Your task to perform on an android device: uninstall "Move to iOS" Image 0: 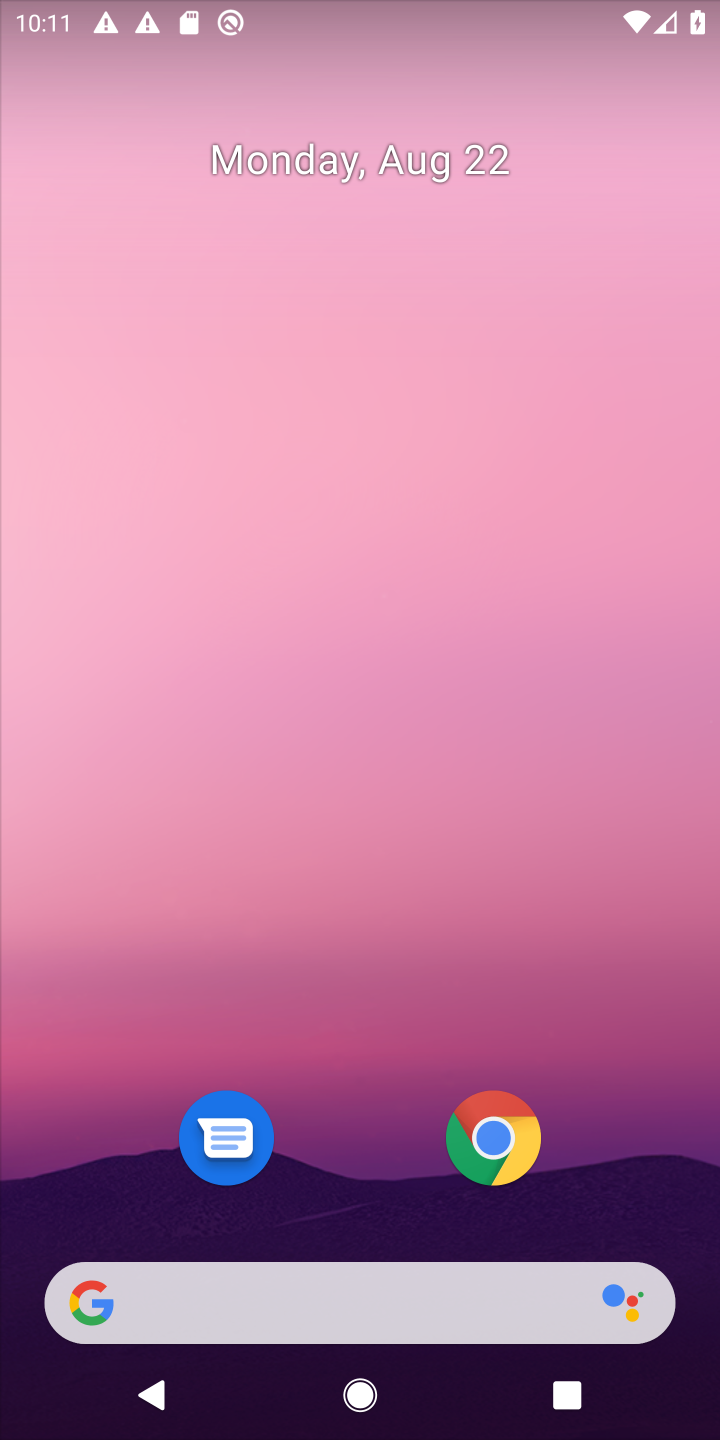
Step 0: drag from (635, 1028) to (651, 94)
Your task to perform on an android device: uninstall "Move to iOS" Image 1: 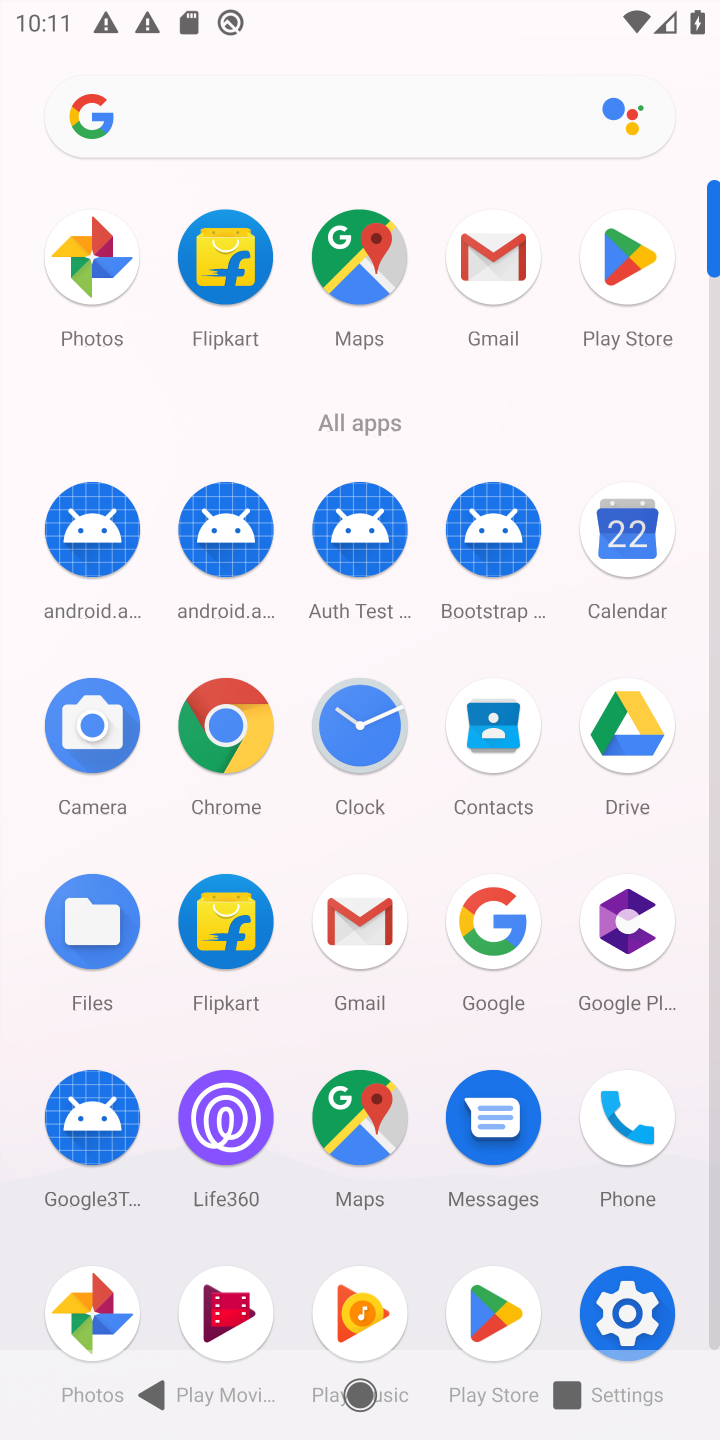
Step 1: click (627, 262)
Your task to perform on an android device: uninstall "Move to iOS" Image 2: 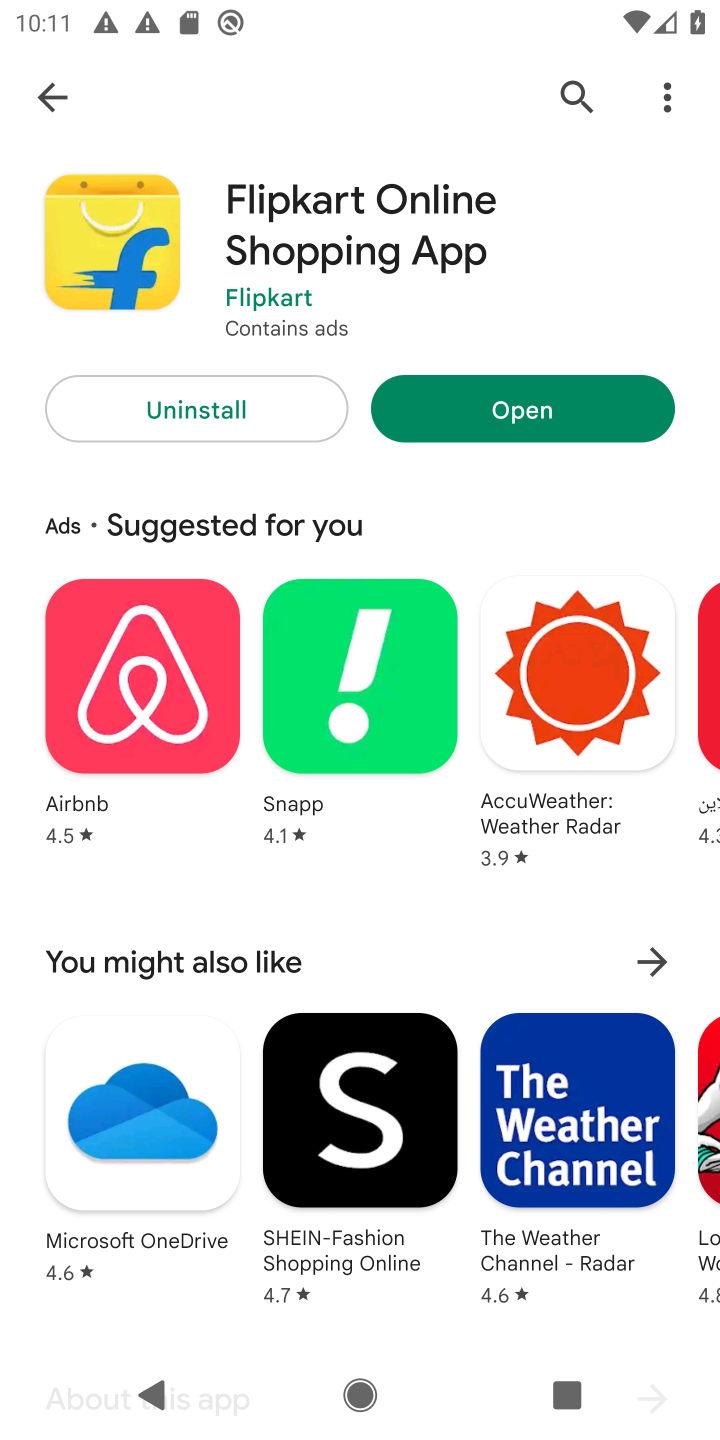
Step 2: press back button
Your task to perform on an android device: uninstall "Move to iOS" Image 3: 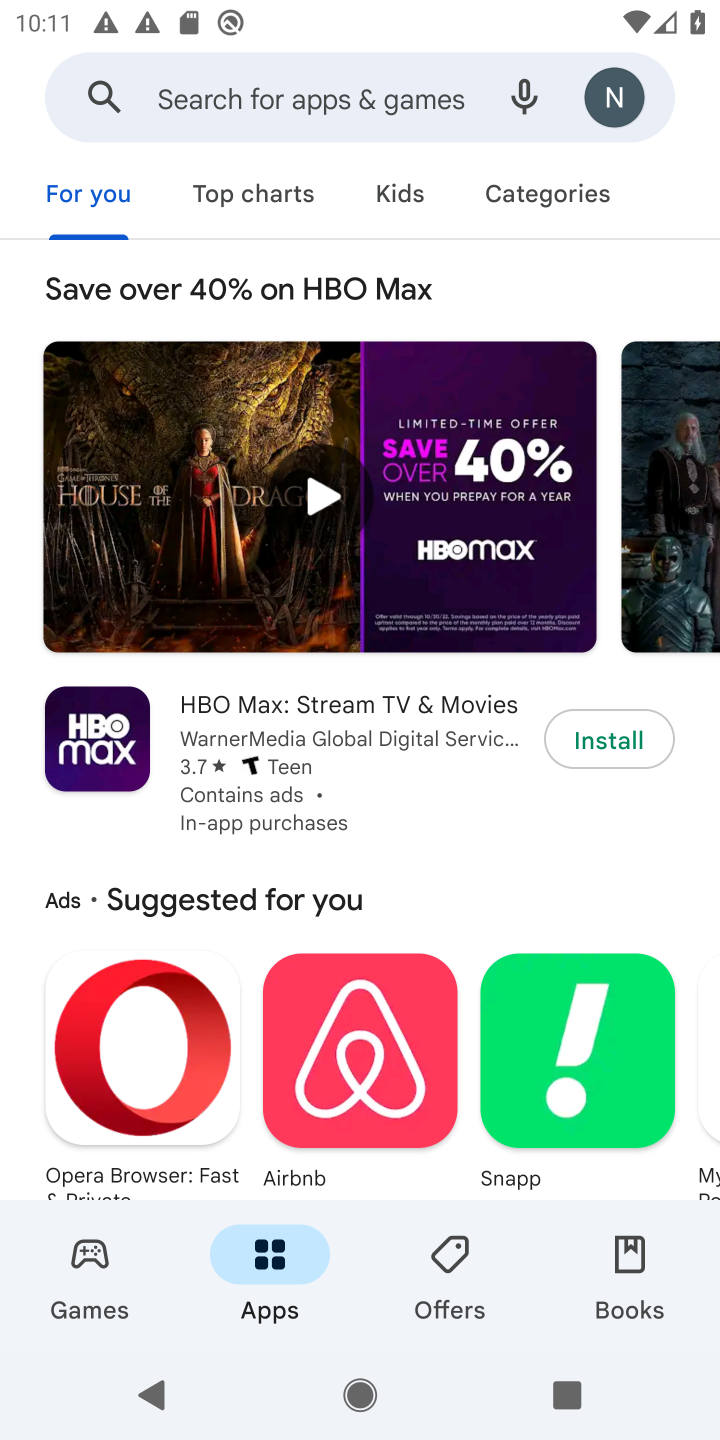
Step 3: click (354, 106)
Your task to perform on an android device: uninstall "Move to iOS" Image 4: 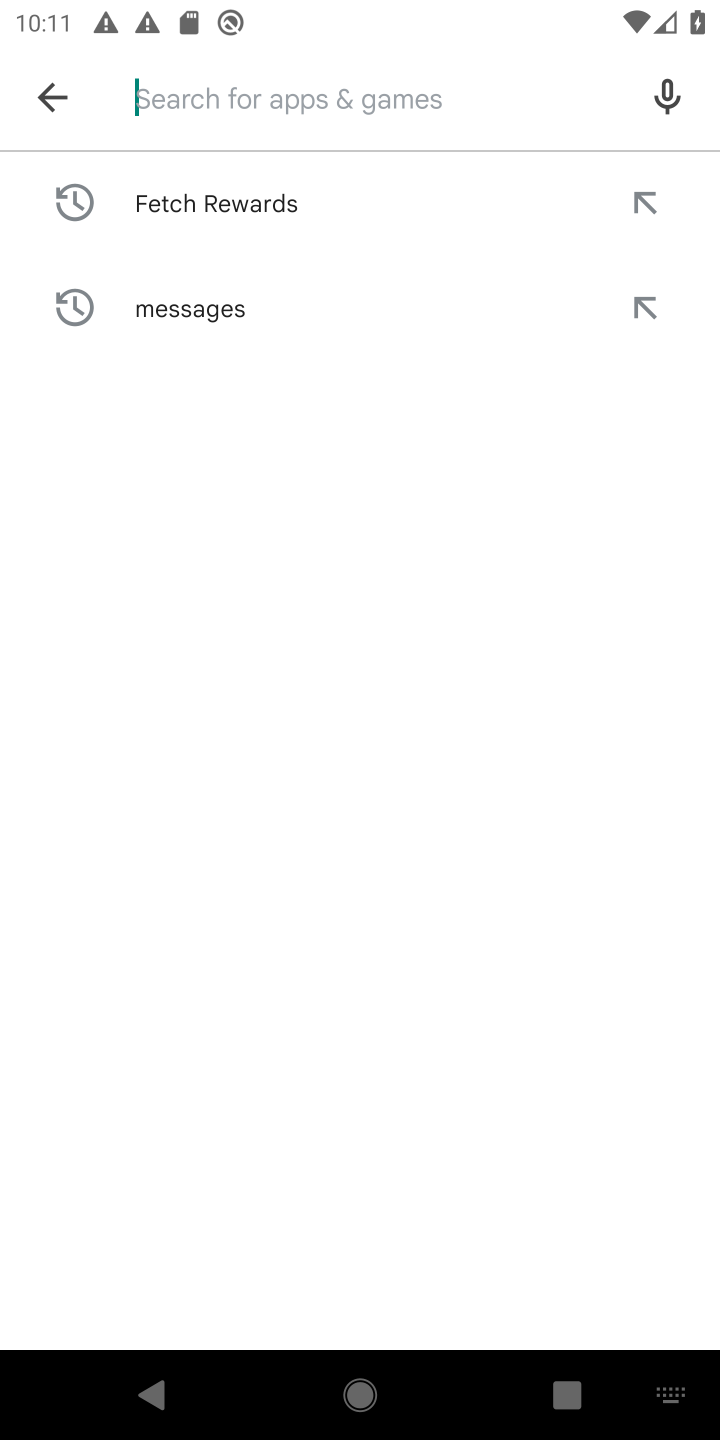
Step 4: type "move to ios"
Your task to perform on an android device: uninstall "Move to iOS" Image 5: 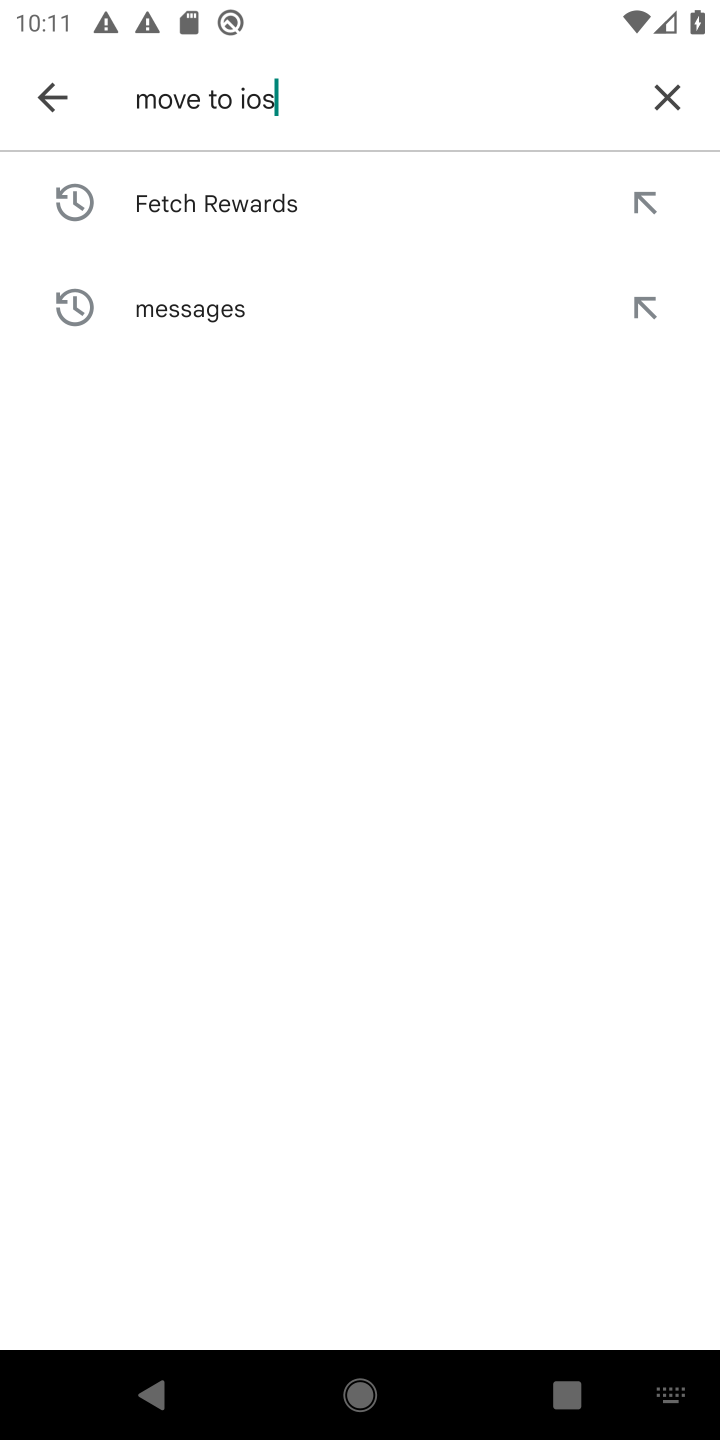
Step 5: press enter
Your task to perform on an android device: uninstall "Move to iOS" Image 6: 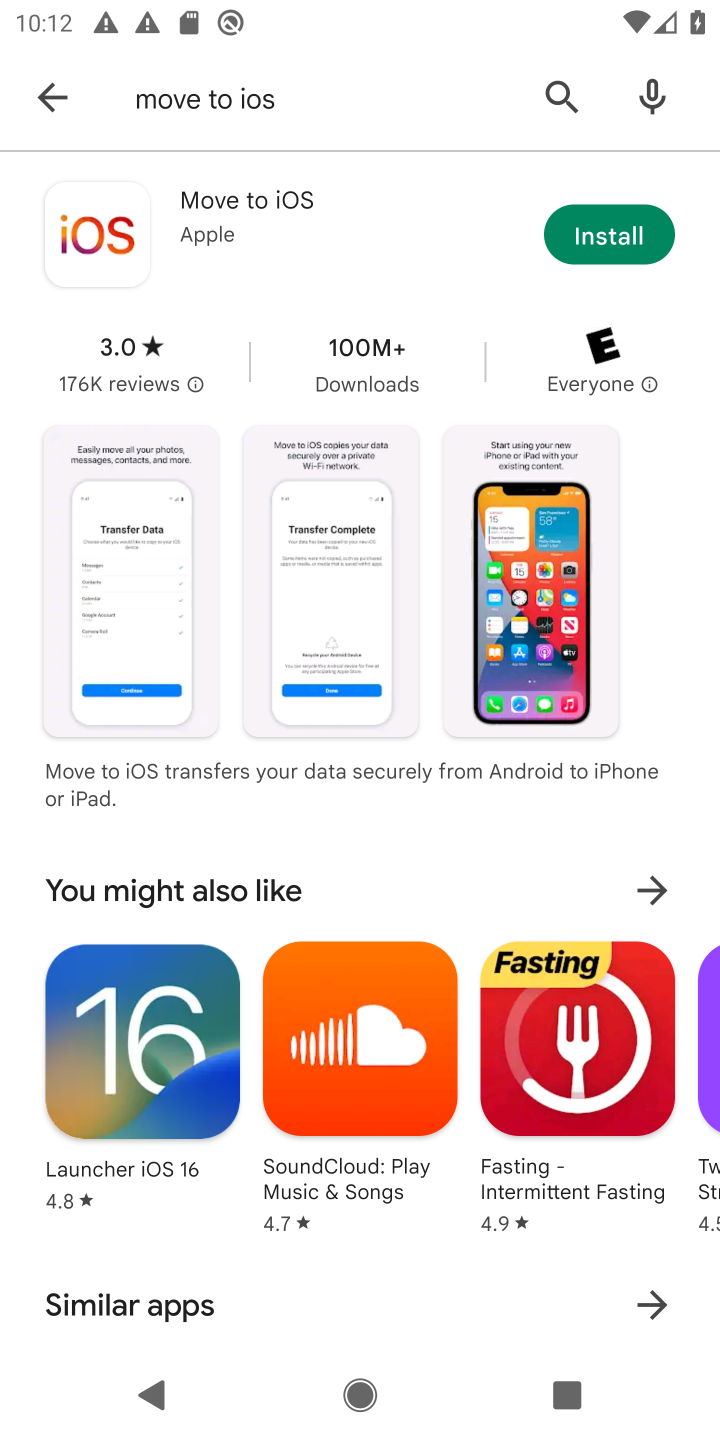
Step 6: task complete